Your task to perform on an android device: Open CNN.com Image 0: 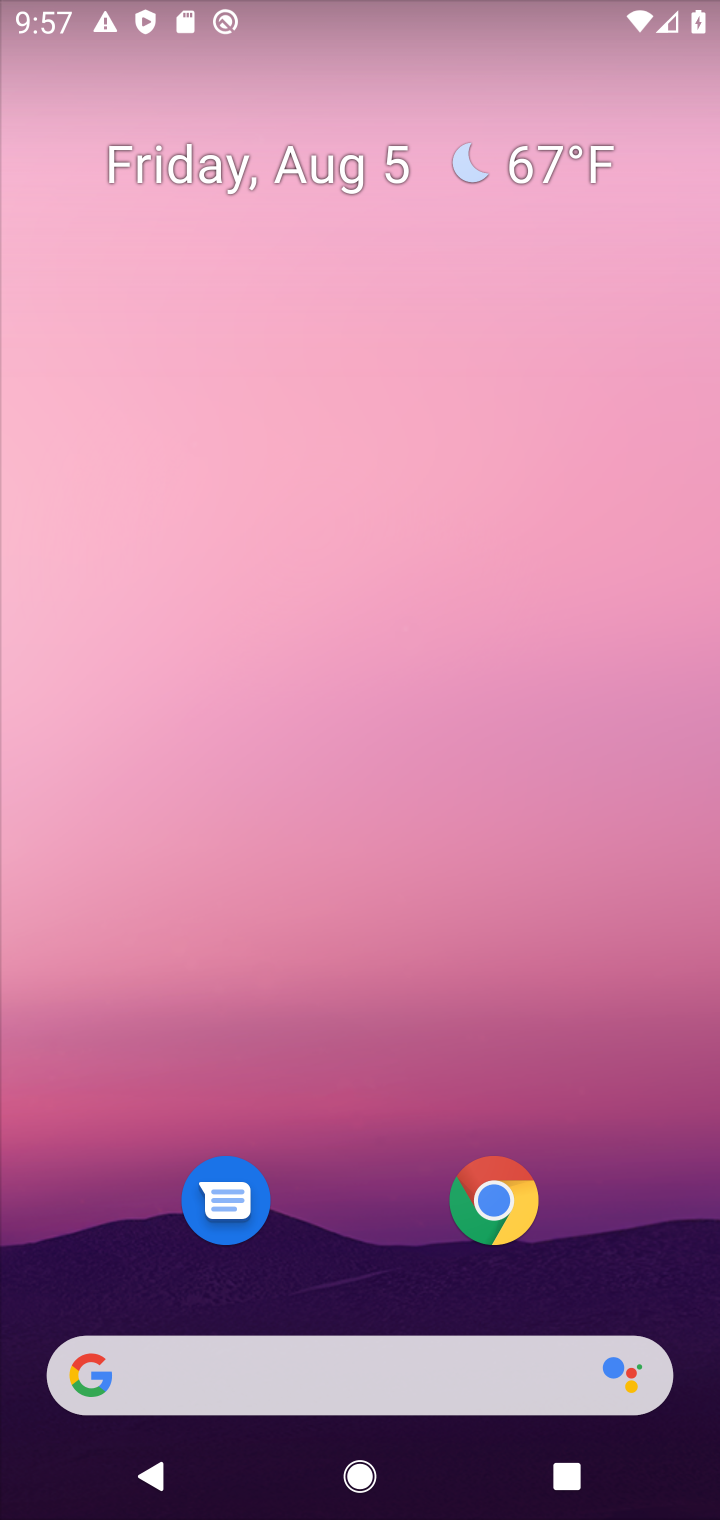
Step 0: click (488, 1179)
Your task to perform on an android device: Open CNN.com Image 1: 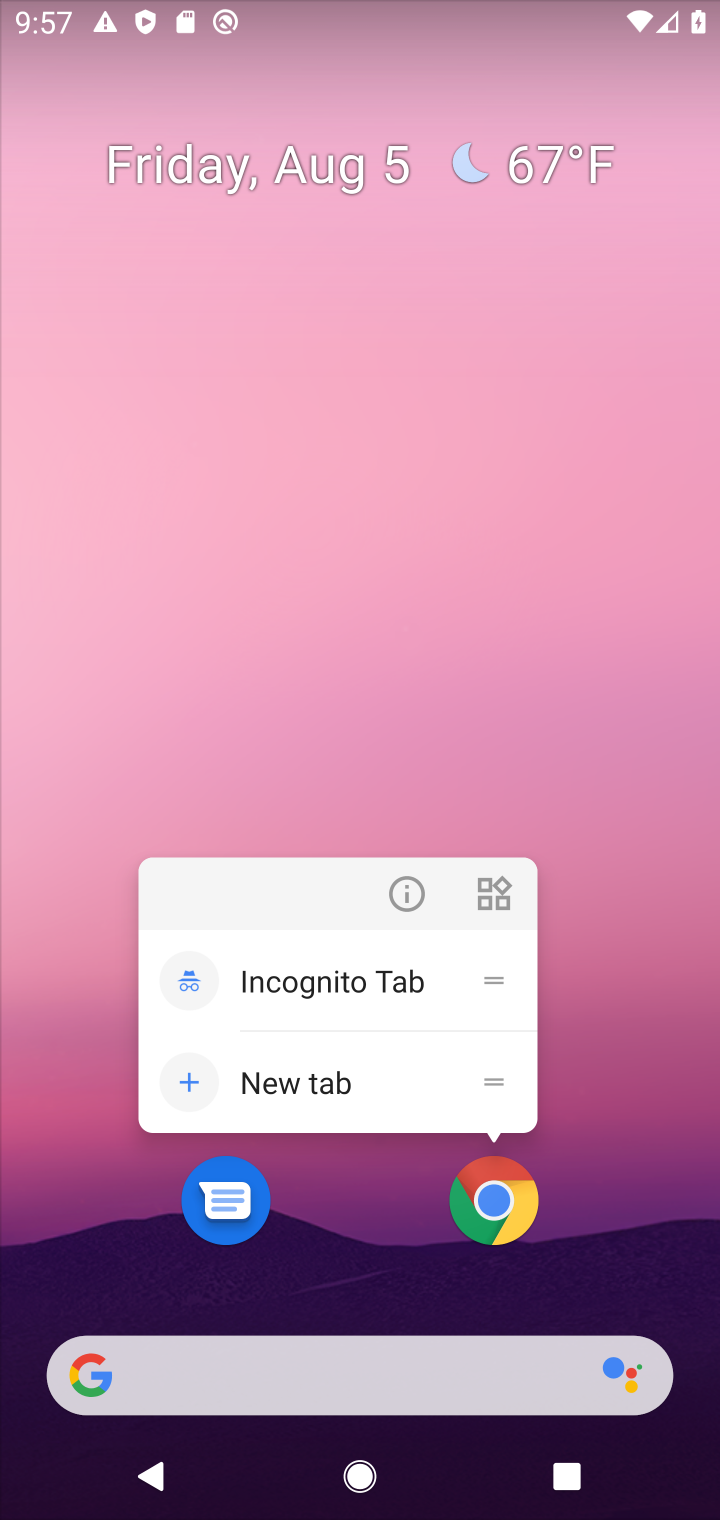
Step 1: click (494, 1195)
Your task to perform on an android device: Open CNN.com Image 2: 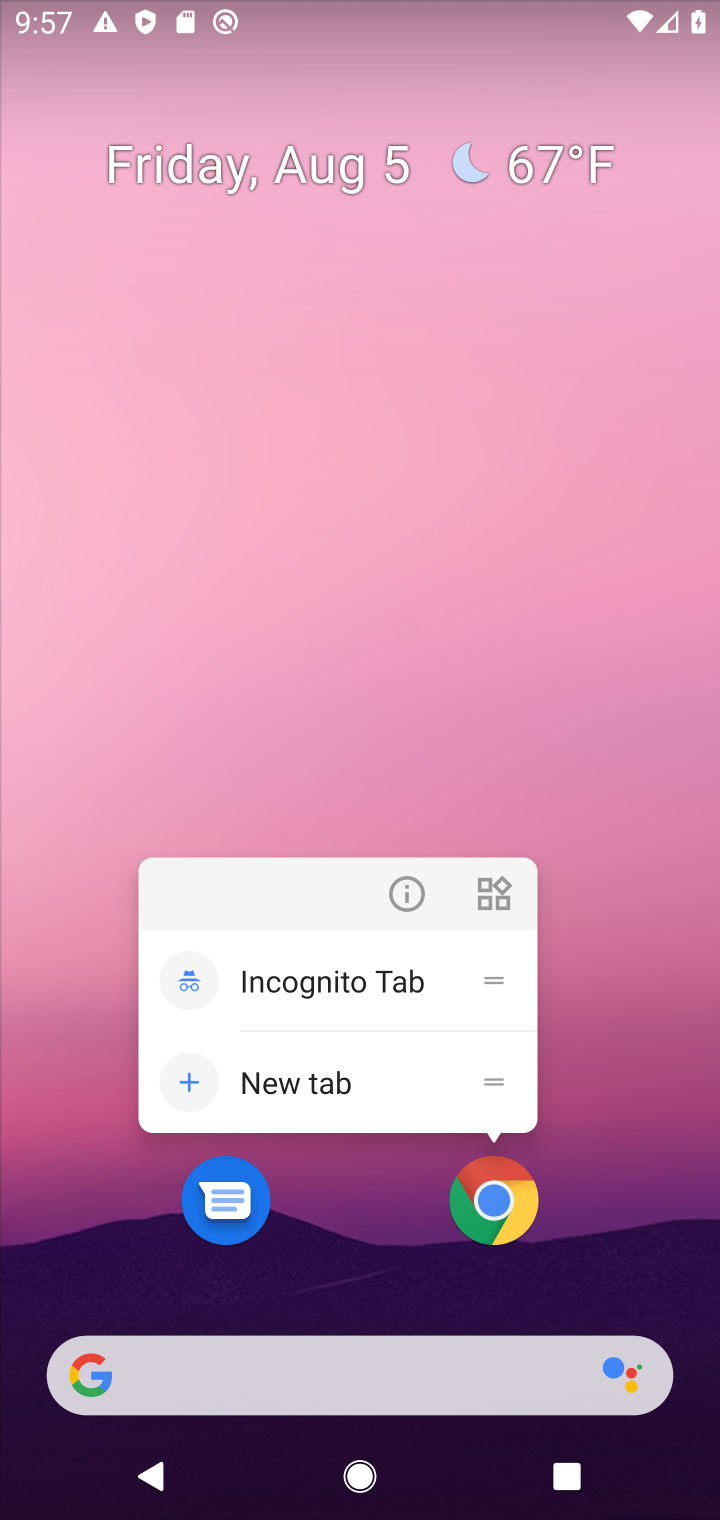
Step 2: click (504, 1201)
Your task to perform on an android device: Open CNN.com Image 3: 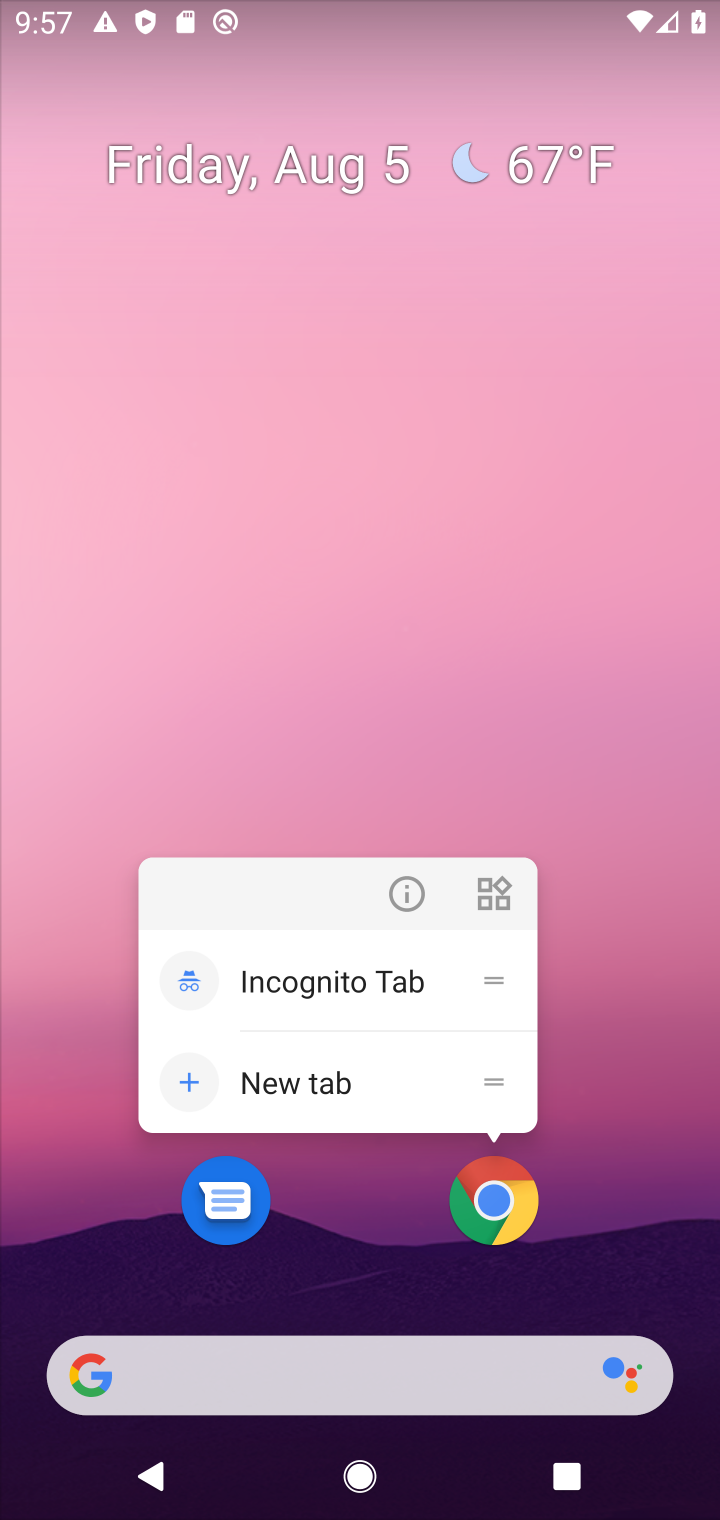
Step 3: click (512, 1206)
Your task to perform on an android device: Open CNN.com Image 4: 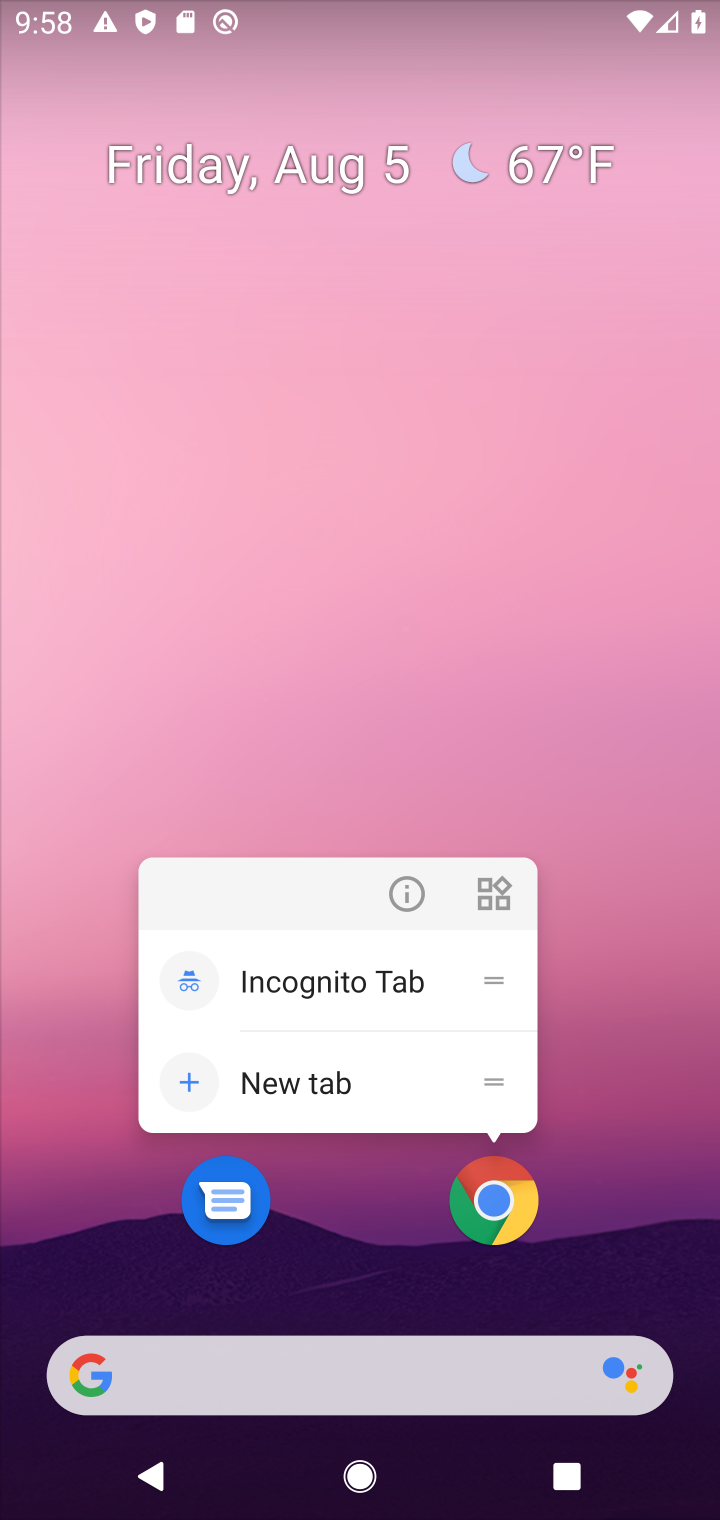
Step 4: click (476, 1190)
Your task to perform on an android device: Open CNN.com Image 5: 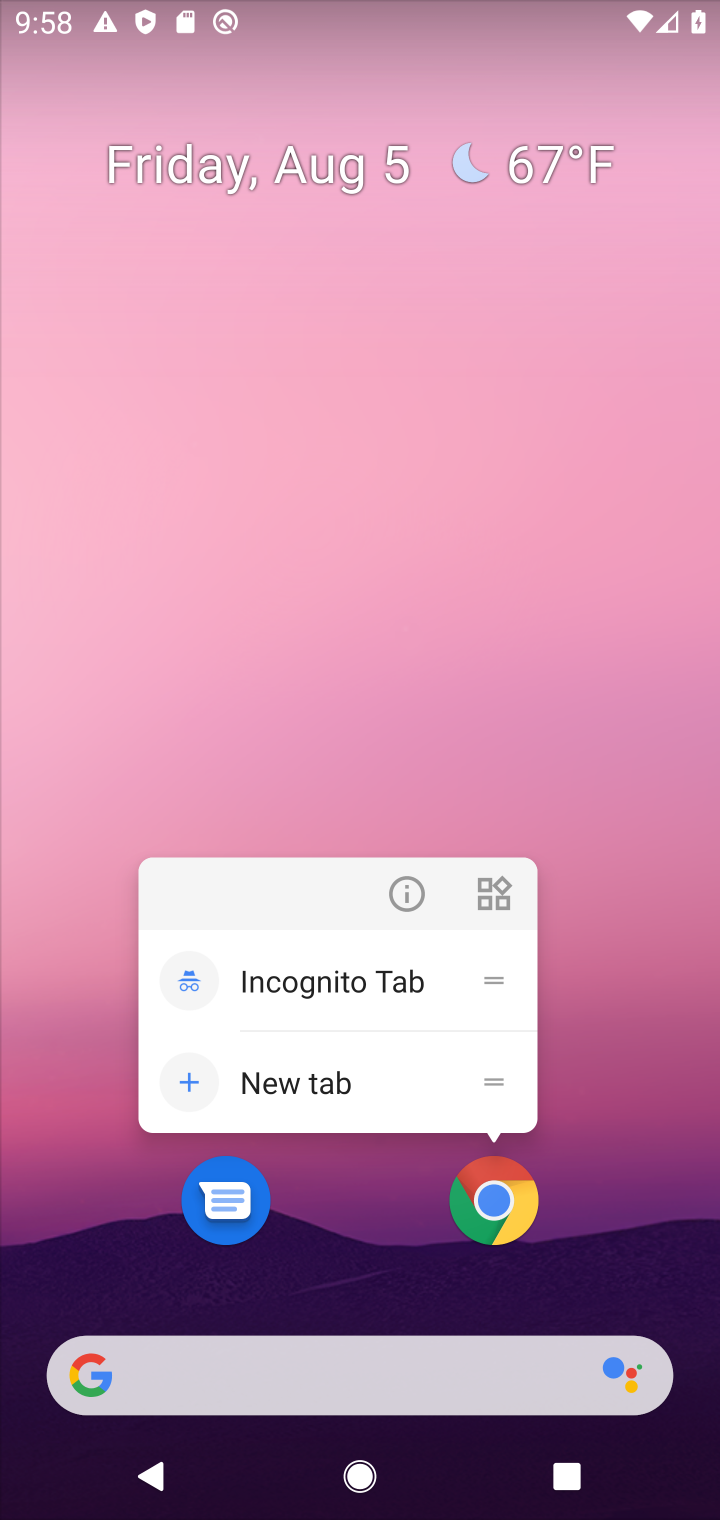
Step 5: click (489, 1201)
Your task to perform on an android device: Open CNN.com Image 6: 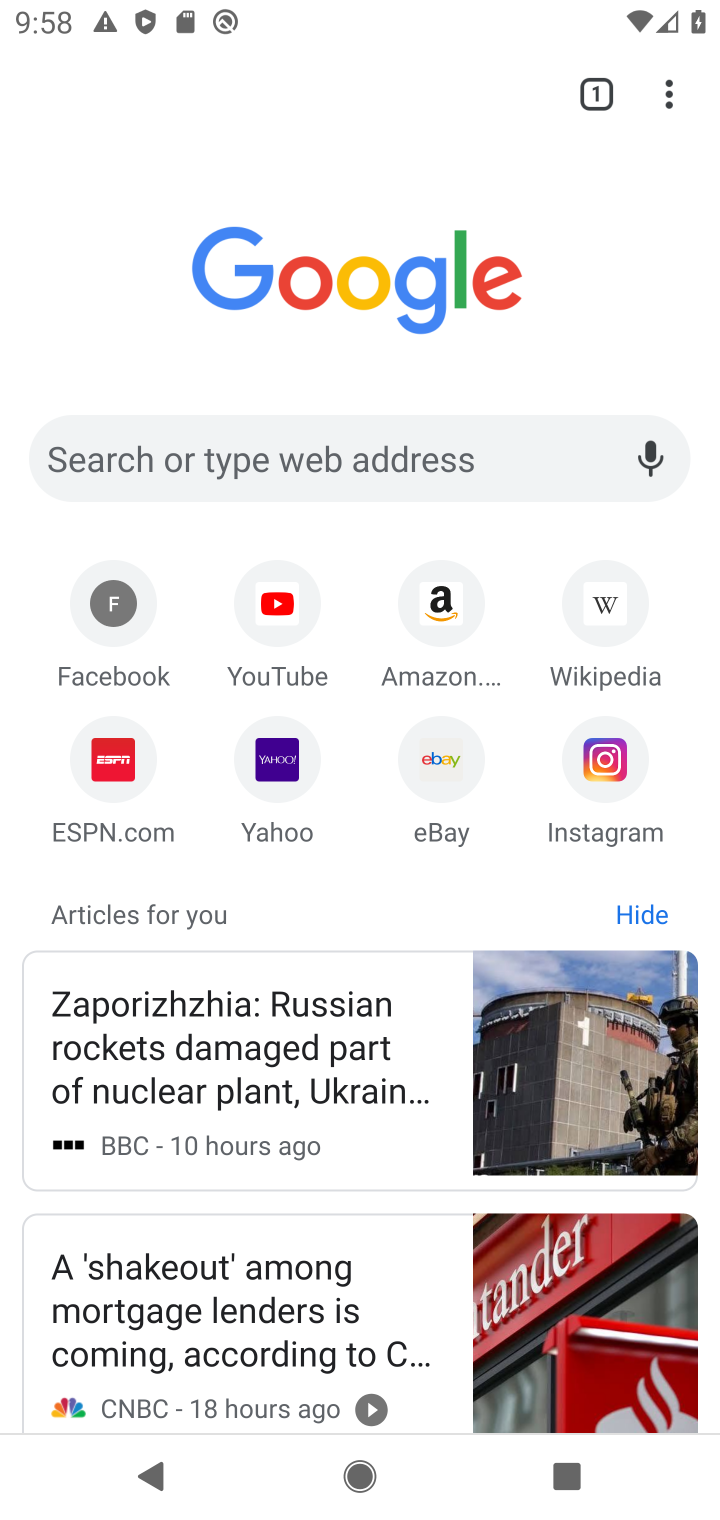
Step 6: click (252, 453)
Your task to perform on an android device: Open CNN.com Image 7: 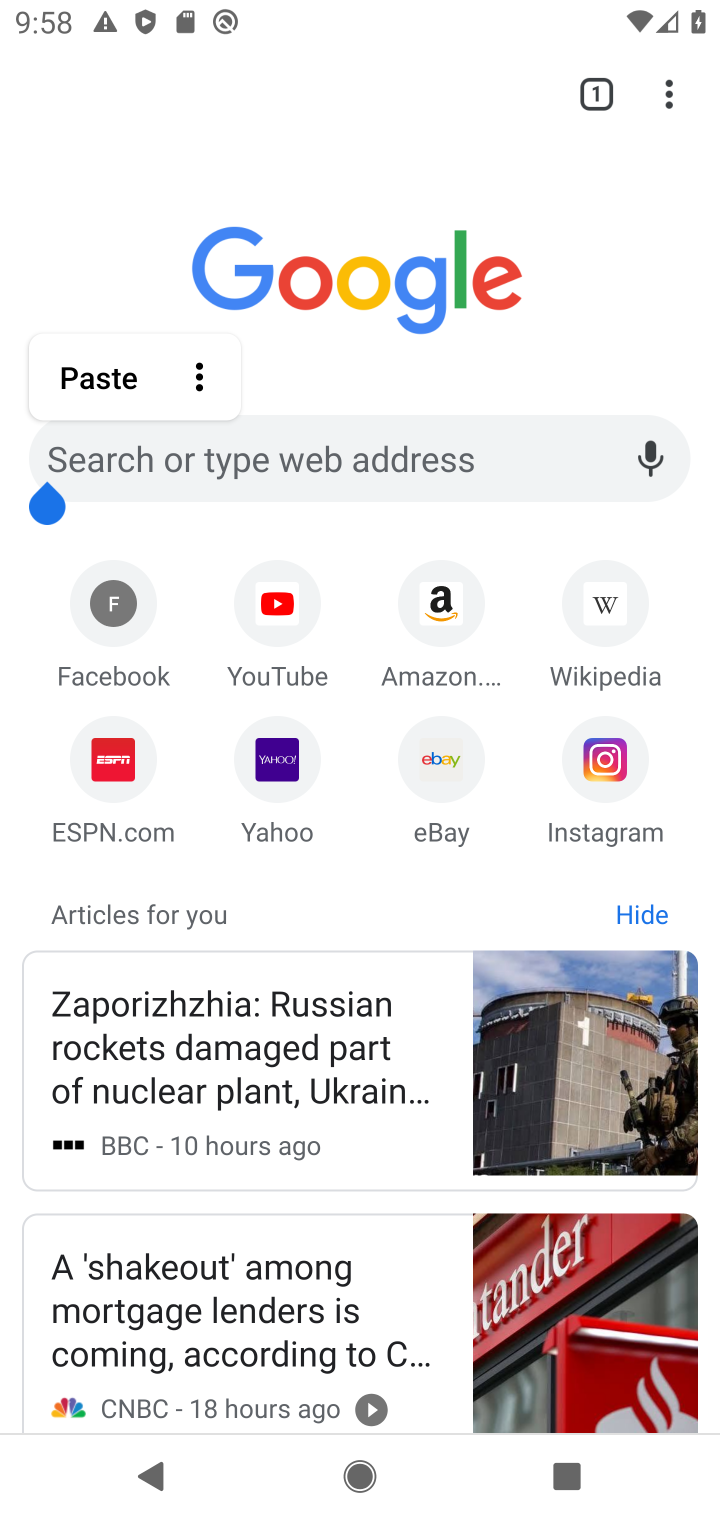
Step 7: type "cnn.com"
Your task to perform on an android device: Open CNN.com Image 8: 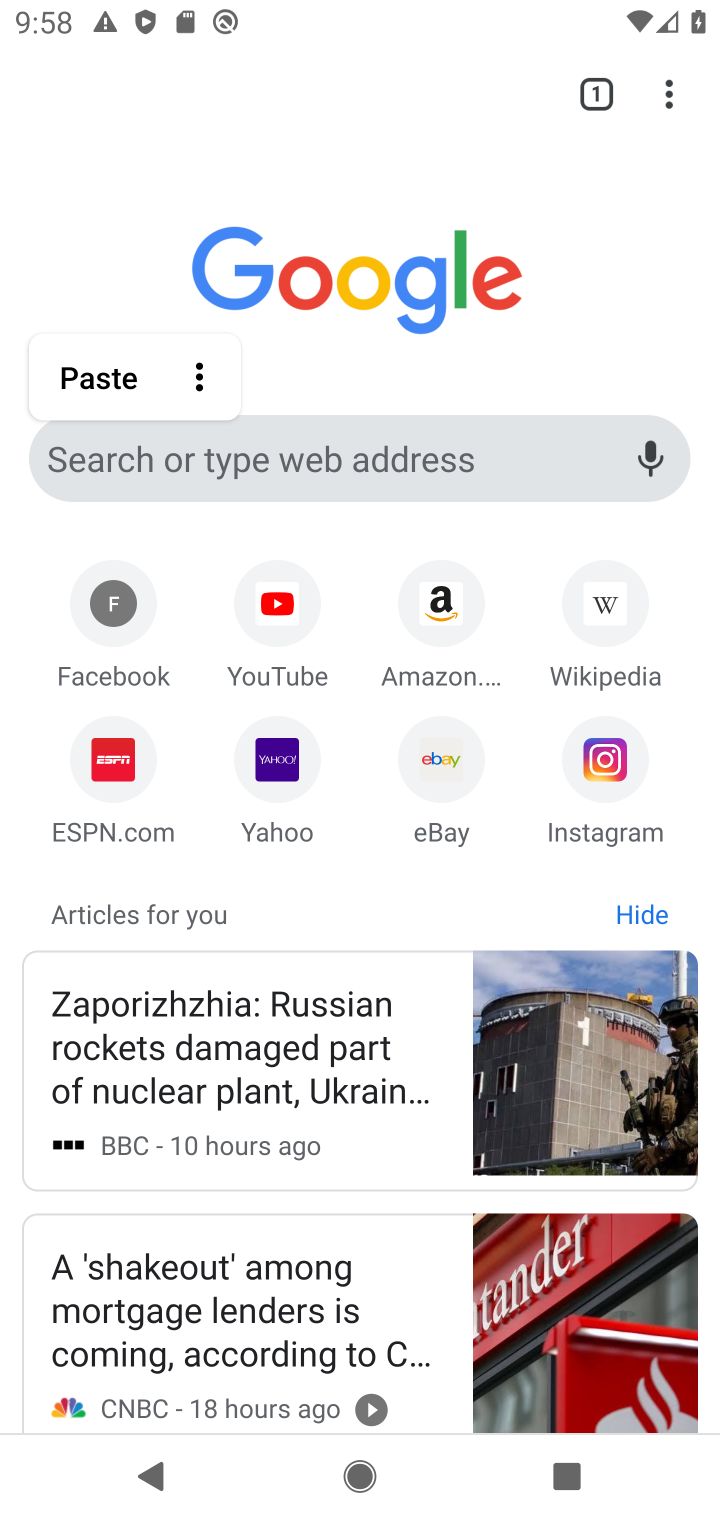
Step 8: click (344, 494)
Your task to perform on an android device: Open CNN.com Image 9: 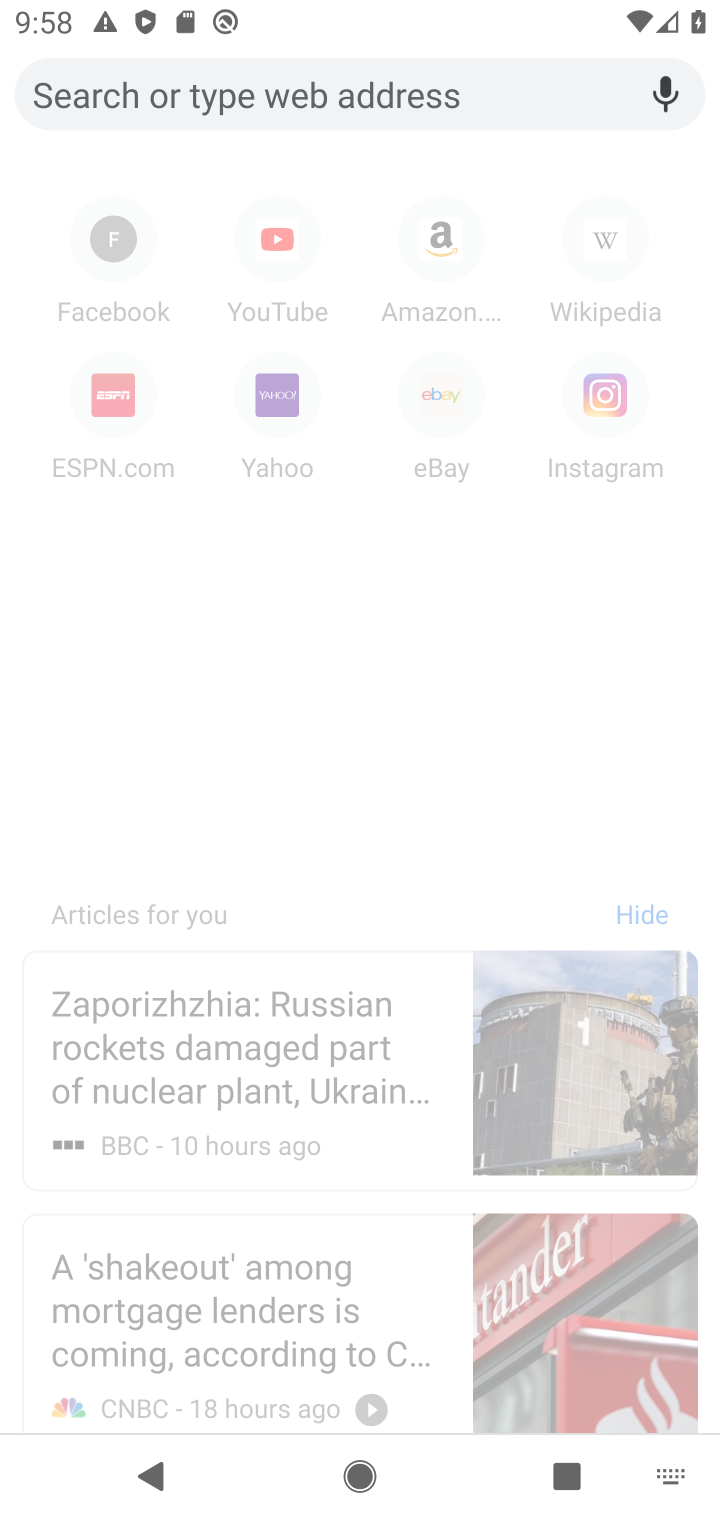
Step 9: click (198, 104)
Your task to perform on an android device: Open CNN.com Image 10: 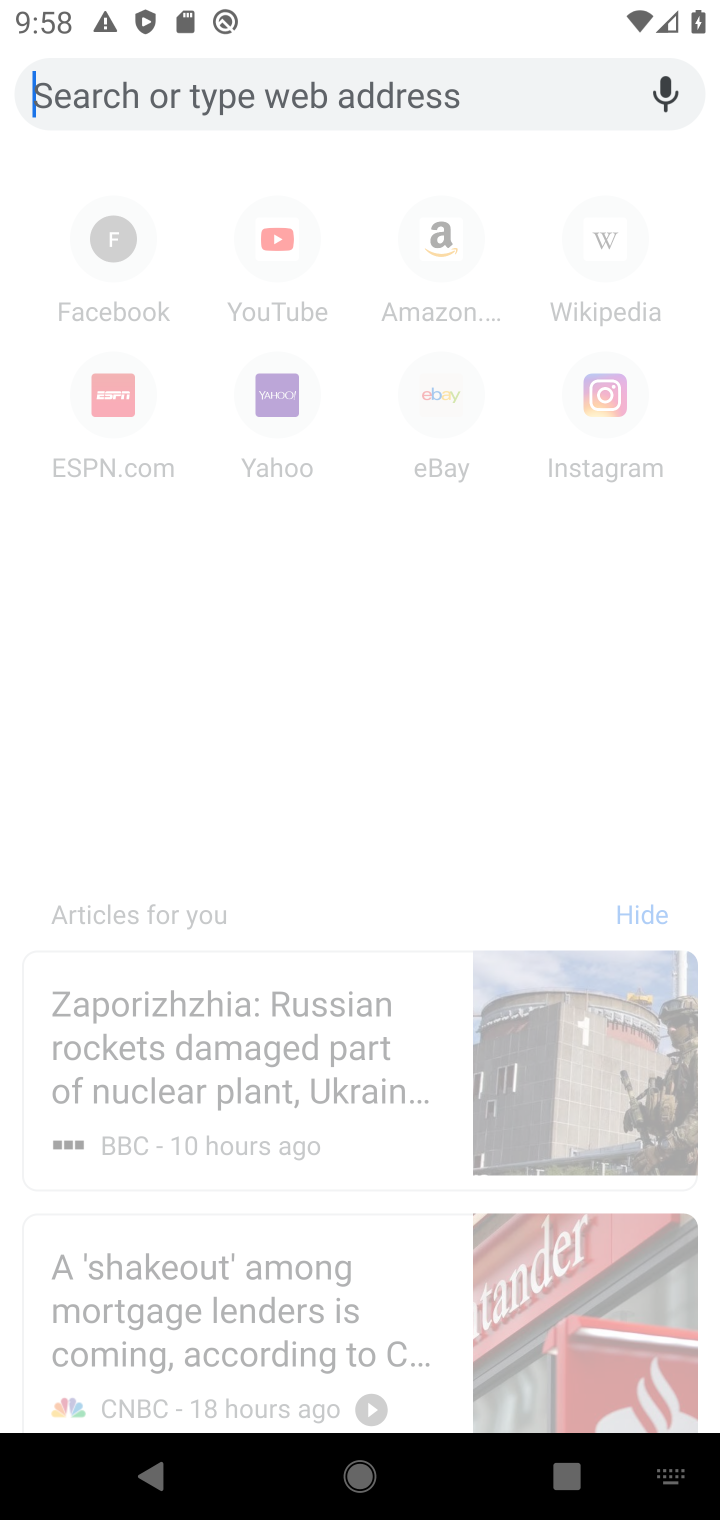
Step 10: type "cnn.com"
Your task to perform on an android device: Open CNN.com Image 11: 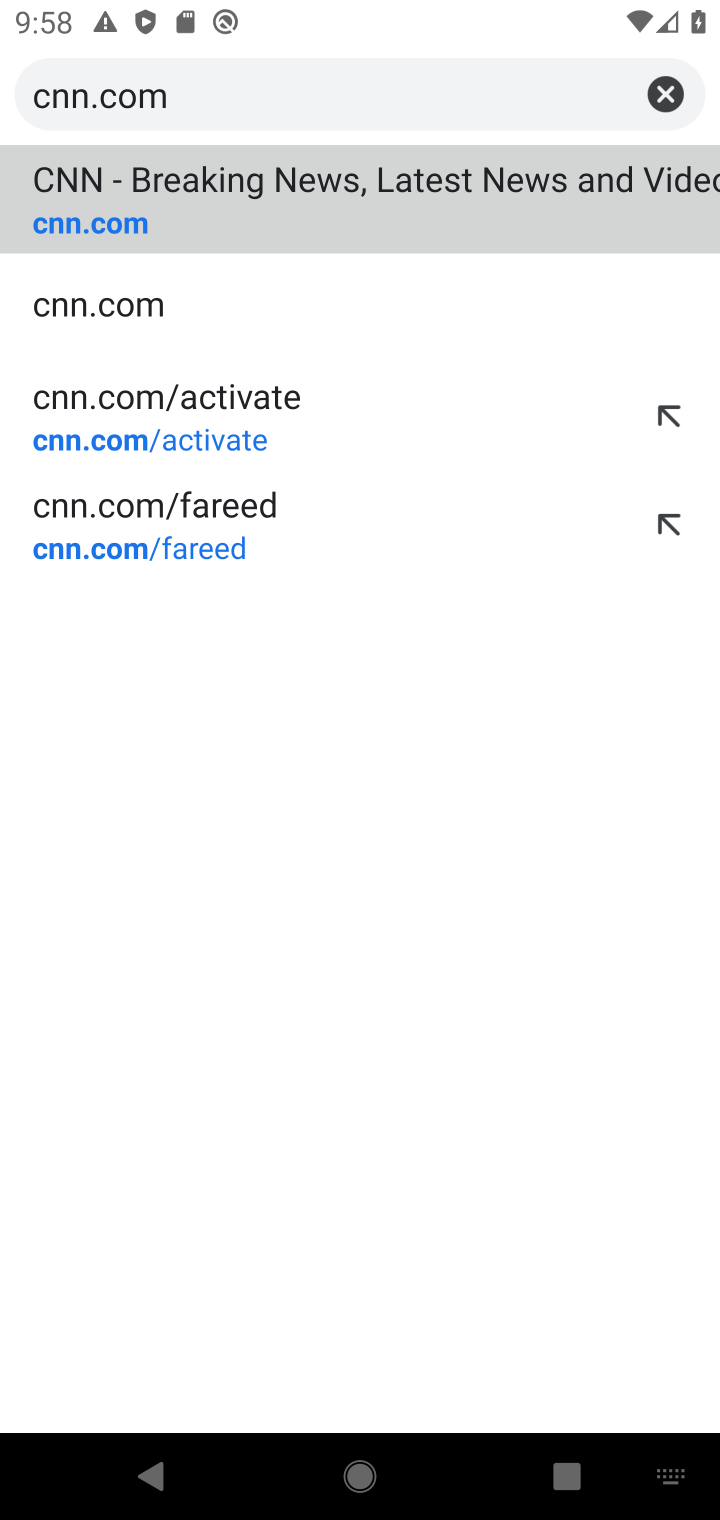
Step 11: click (249, 96)
Your task to perform on an android device: Open CNN.com Image 12: 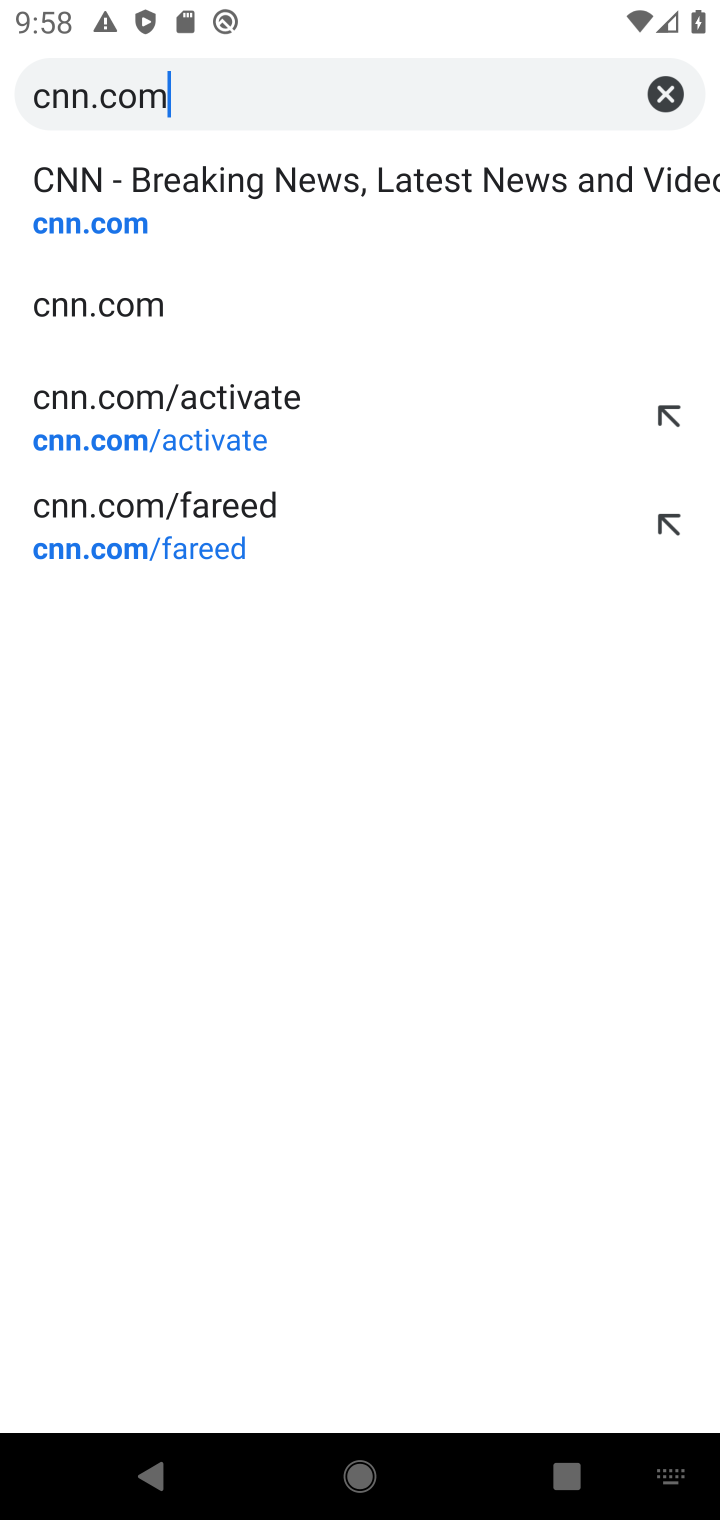
Step 12: click (179, 191)
Your task to perform on an android device: Open CNN.com Image 13: 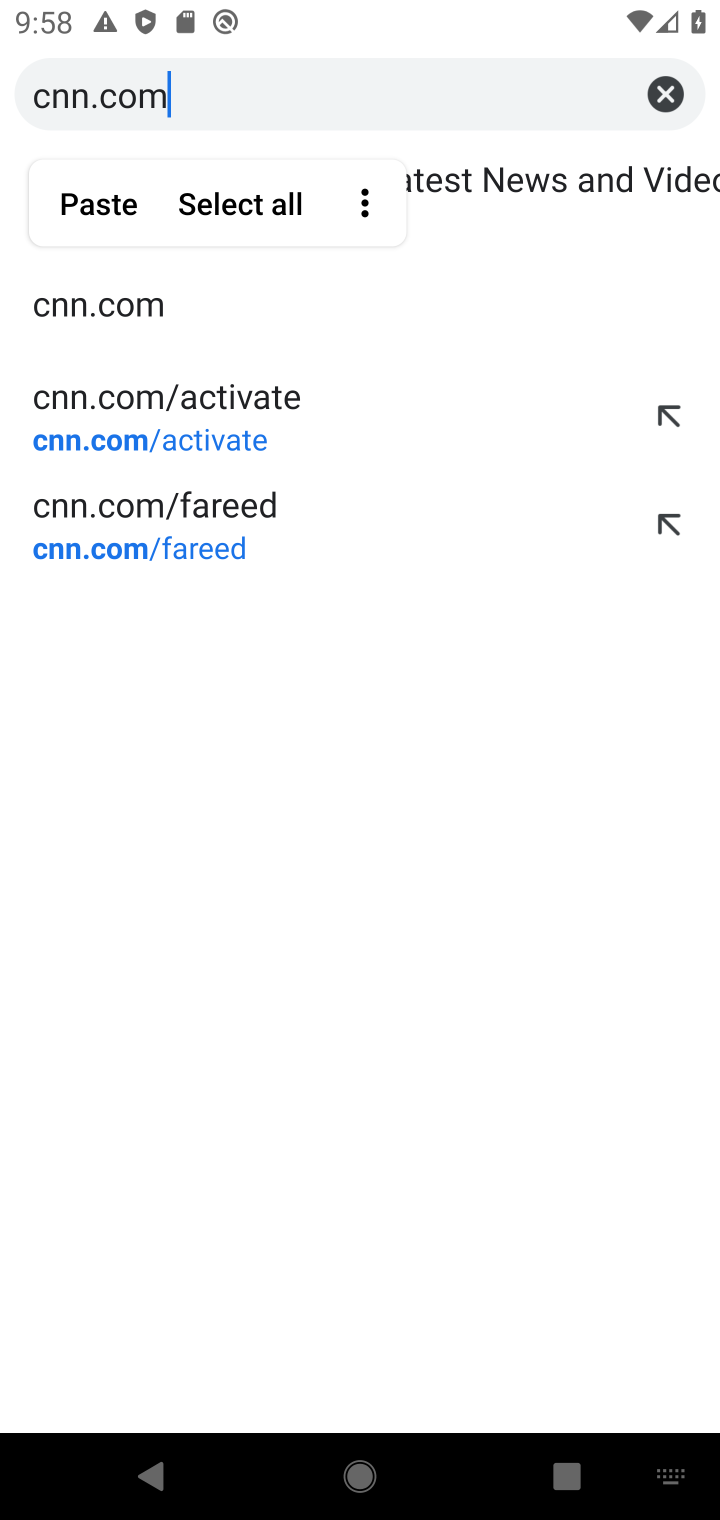
Step 13: click (571, 186)
Your task to perform on an android device: Open CNN.com Image 14: 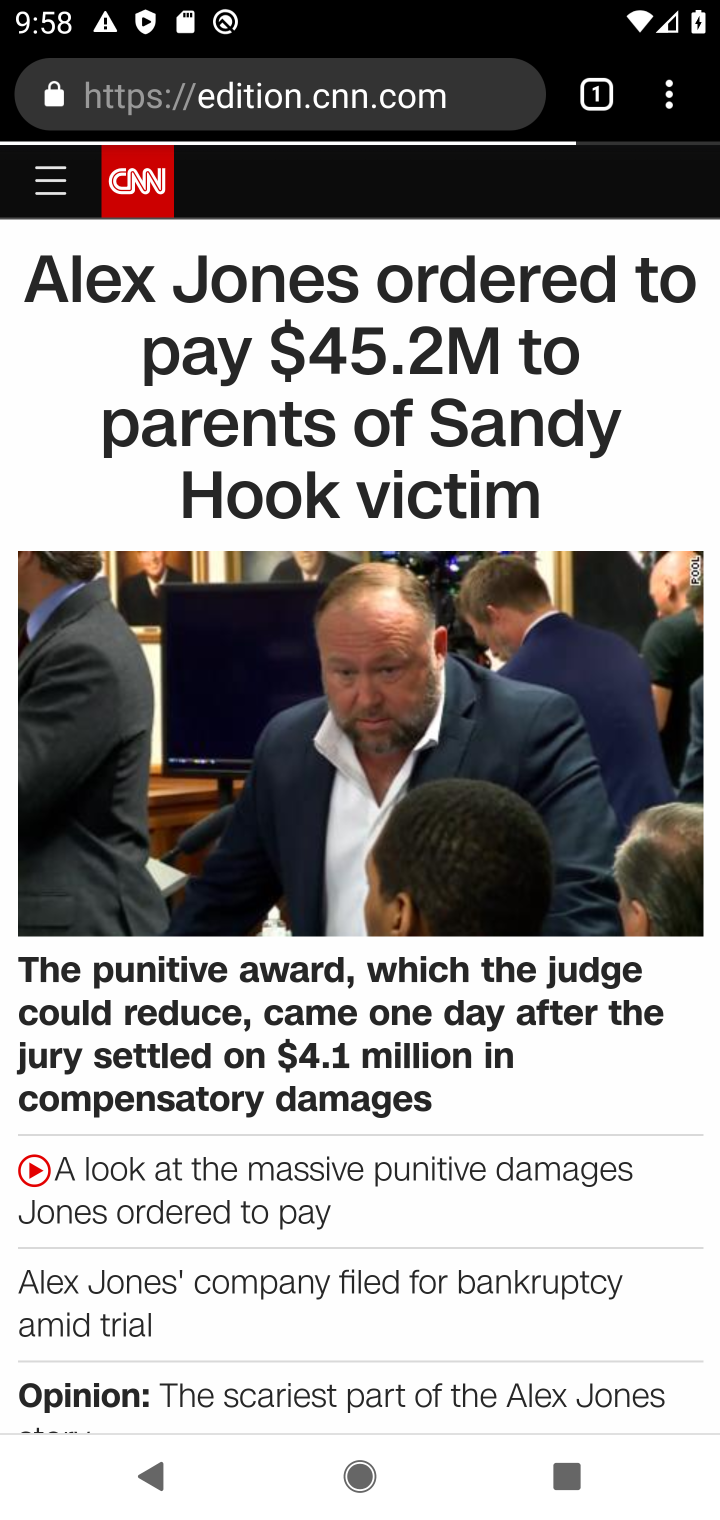
Step 14: task complete